Your task to perform on an android device: Open location settings Image 0: 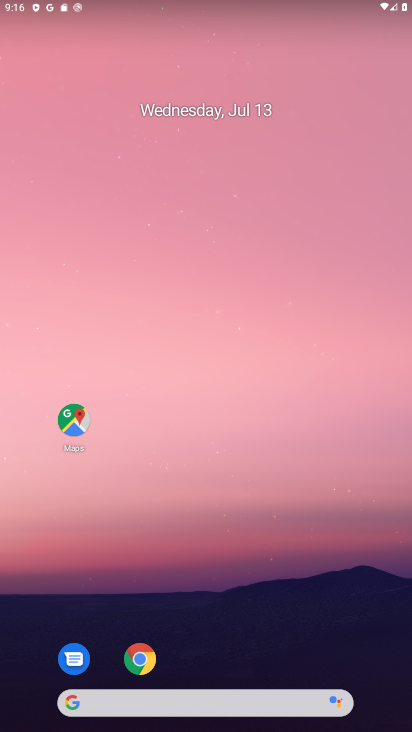
Step 0: drag from (167, 631) to (245, 43)
Your task to perform on an android device: Open location settings Image 1: 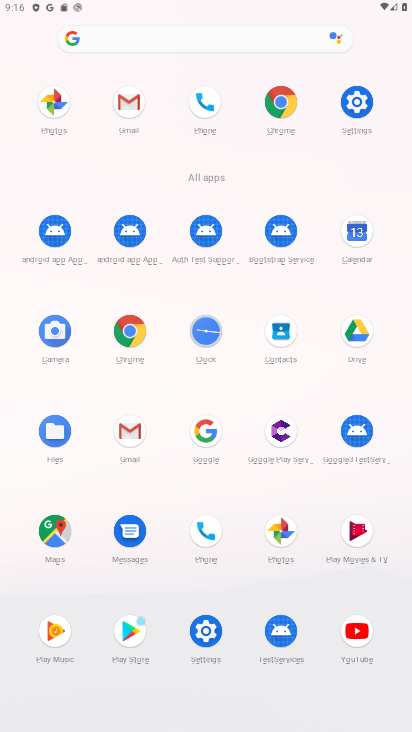
Step 1: click (344, 90)
Your task to perform on an android device: Open location settings Image 2: 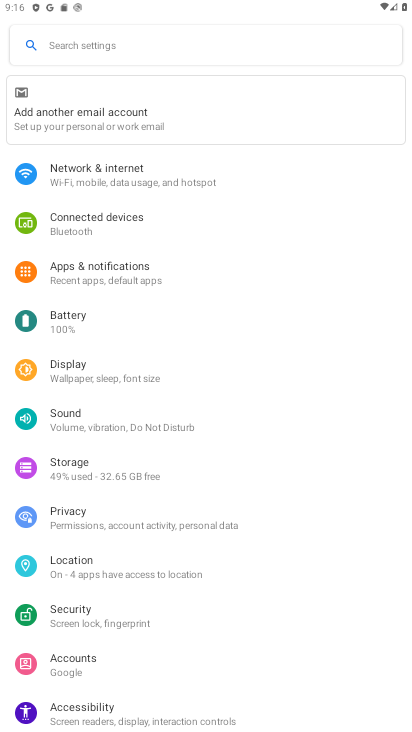
Step 2: click (116, 561)
Your task to perform on an android device: Open location settings Image 3: 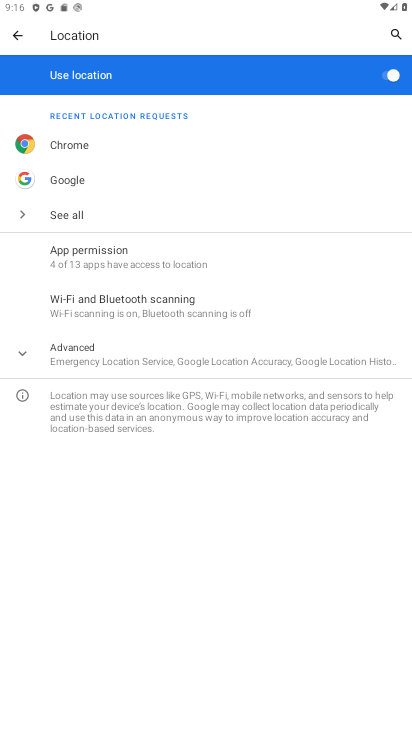
Step 3: task complete